Your task to perform on an android device: Go to Wikipedia Image 0: 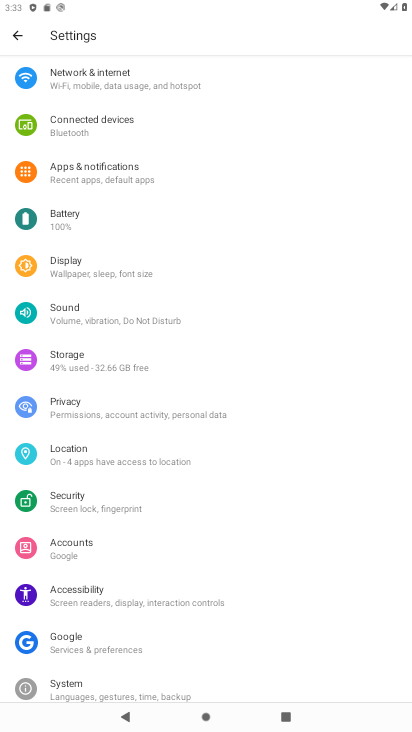
Step 0: drag from (190, 564) to (205, 281)
Your task to perform on an android device: Go to Wikipedia Image 1: 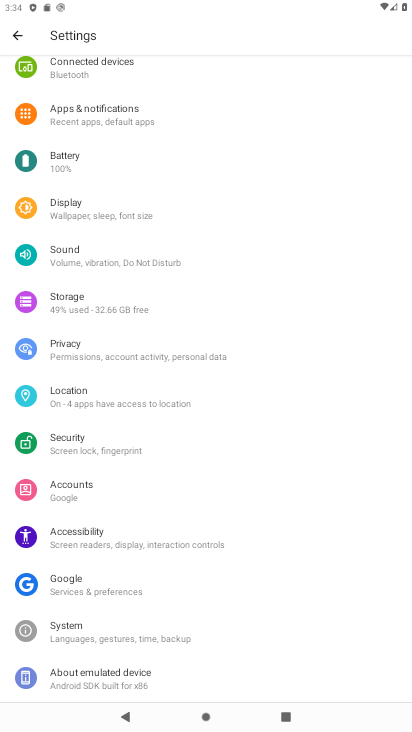
Step 1: press home button
Your task to perform on an android device: Go to Wikipedia Image 2: 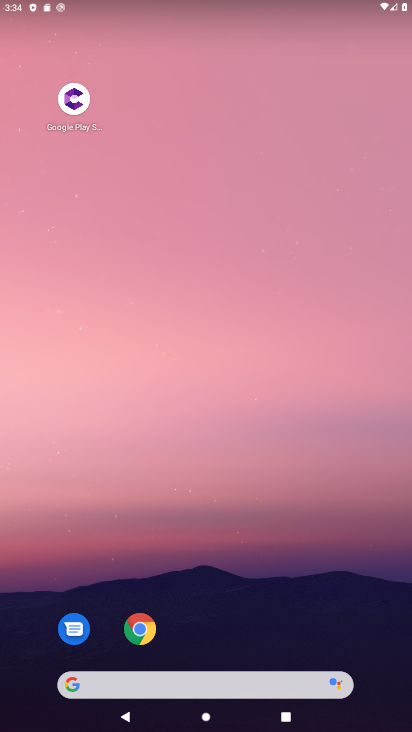
Step 2: drag from (285, 590) to (274, 233)
Your task to perform on an android device: Go to Wikipedia Image 3: 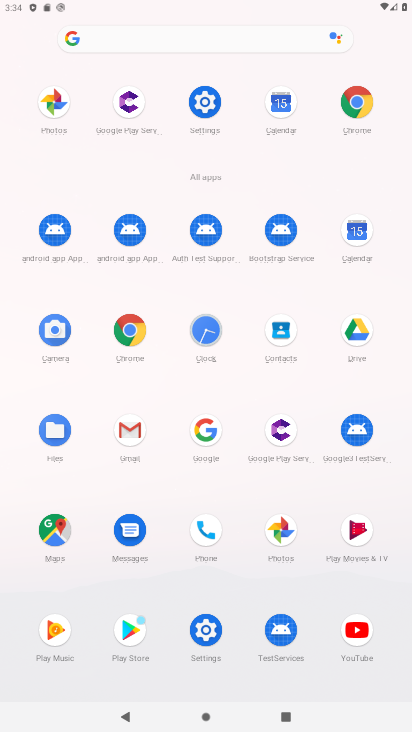
Step 3: click (138, 323)
Your task to perform on an android device: Go to Wikipedia Image 4: 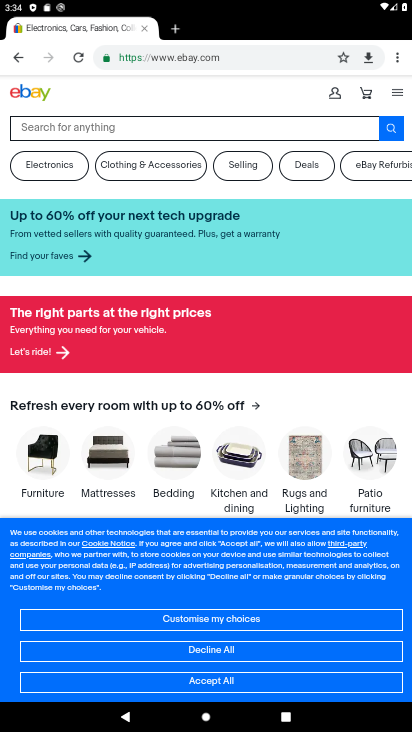
Step 4: drag from (401, 64) to (335, 98)
Your task to perform on an android device: Go to Wikipedia Image 5: 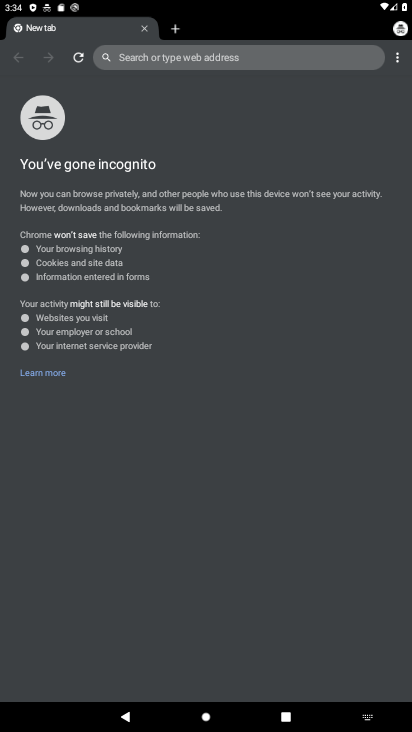
Step 5: click (52, 51)
Your task to perform on an android device: Go to Wikipedia Image 6: 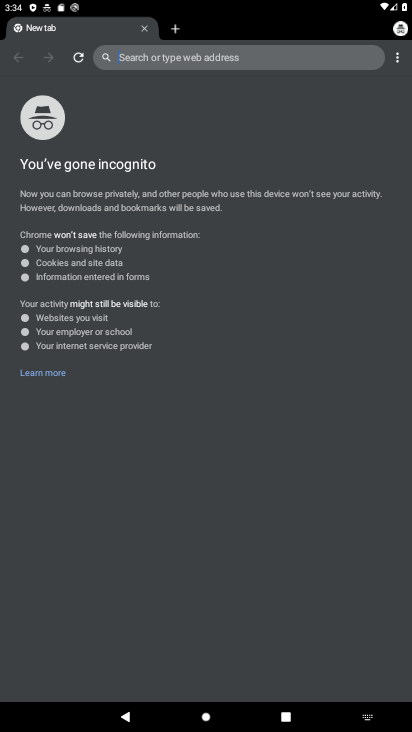
Step 6: click (84, 64)
Your task to perform on an android device: Go to Wikipedia Image 7: 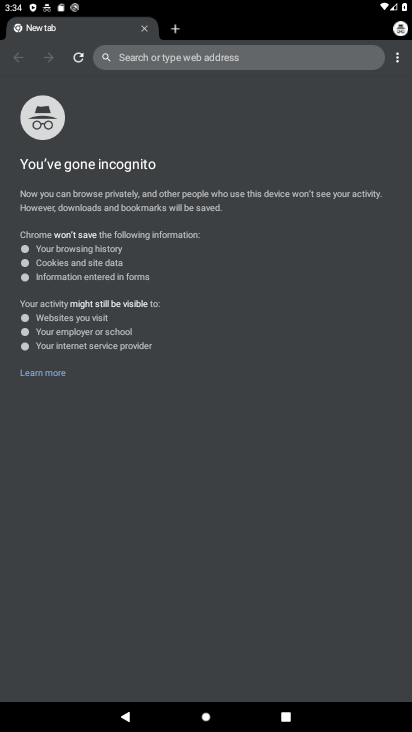
Step 7: task complete